Your task to perform on an android device: What's the news in India? Image 0: 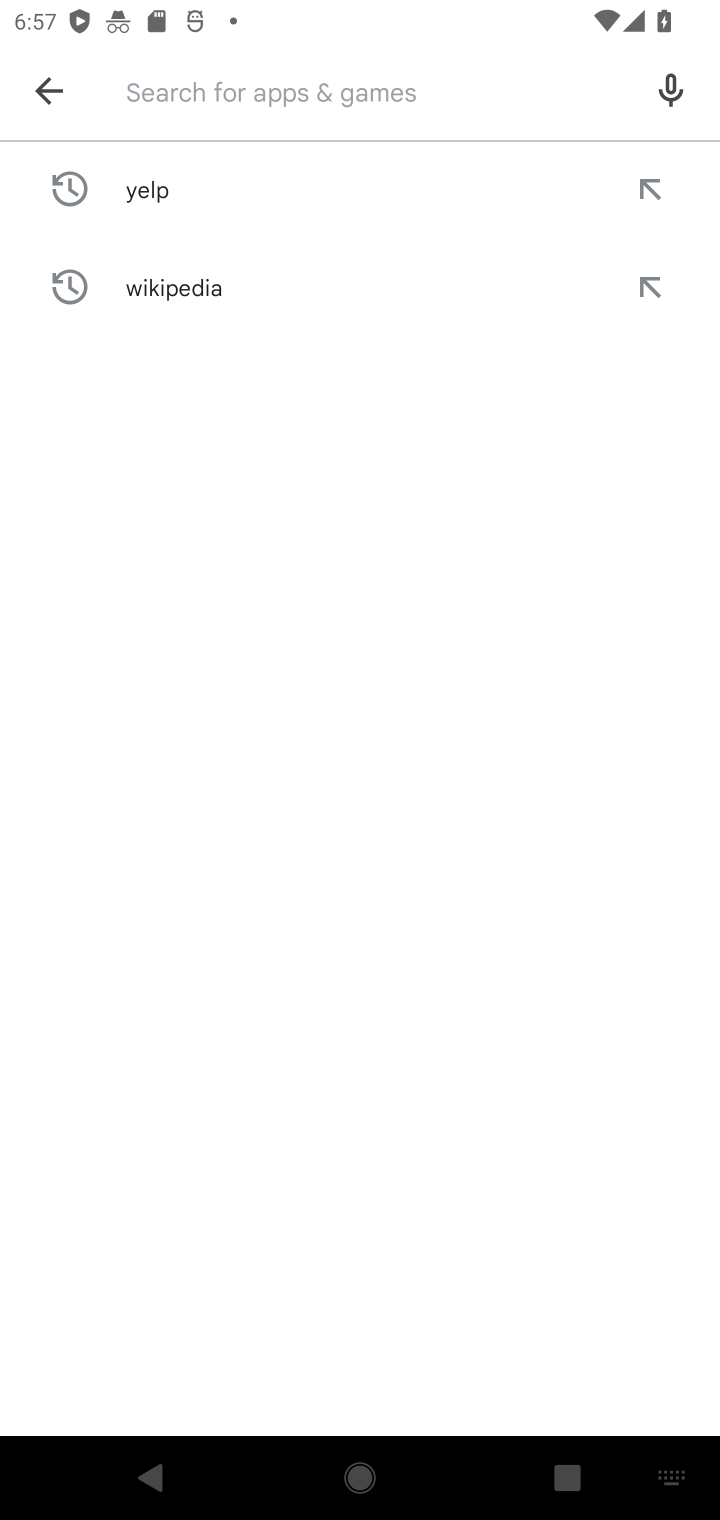
Step 0: press home button
Your task to perform on an android device: What's the news in India? Image 1: 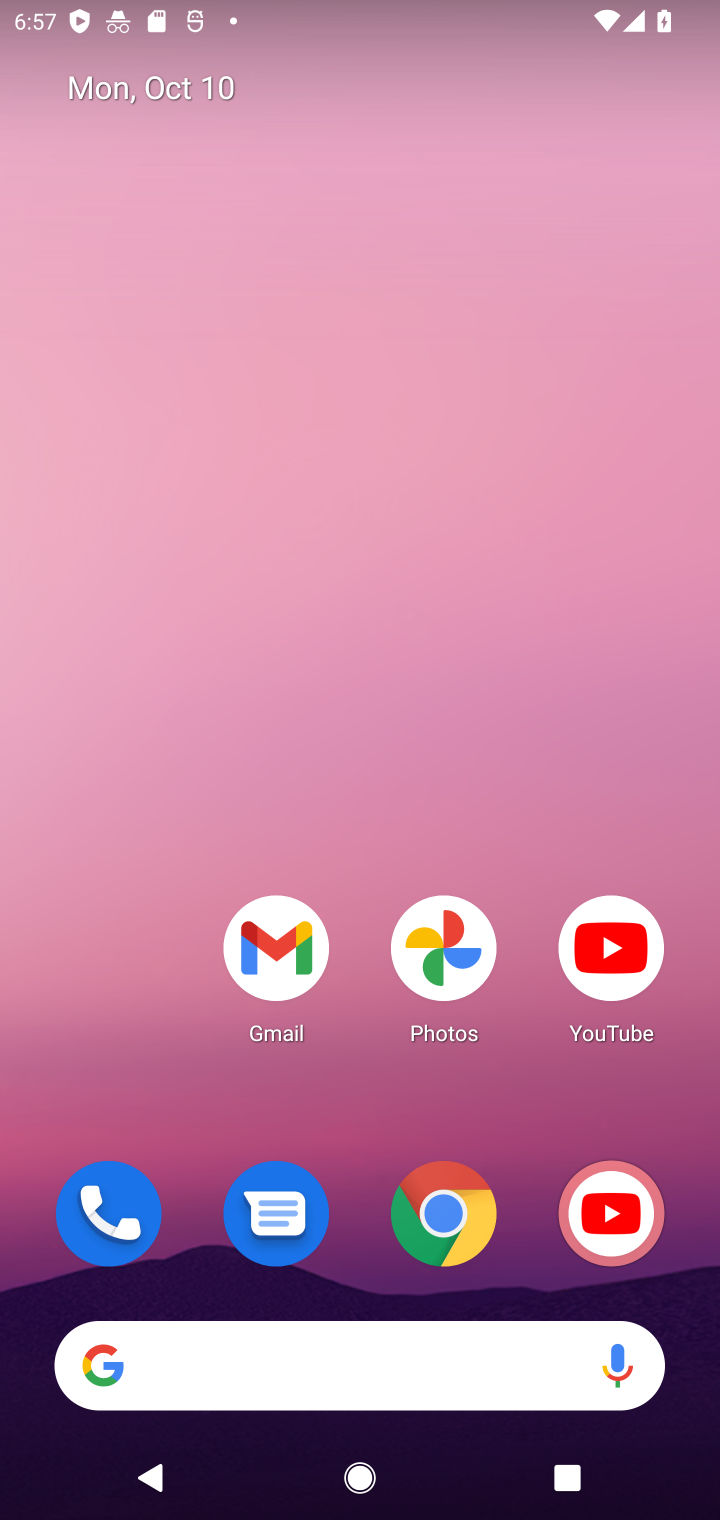
Step 1: click (247, 1390)
Your task to perform on an android device: What's the news in India? Image 2: 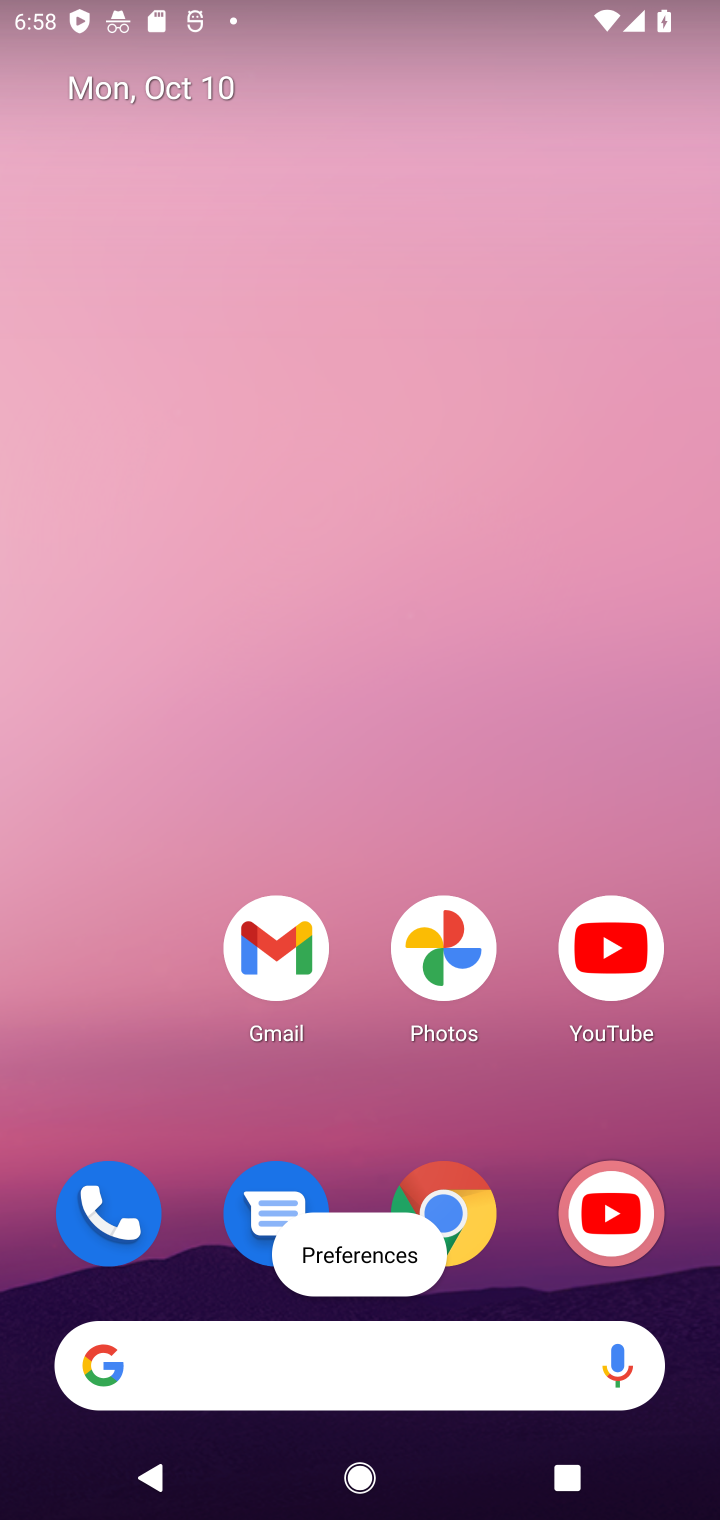
Step 2: click (386, 1367)
Your task to perform on an android device: What's the news in India? Image 3: 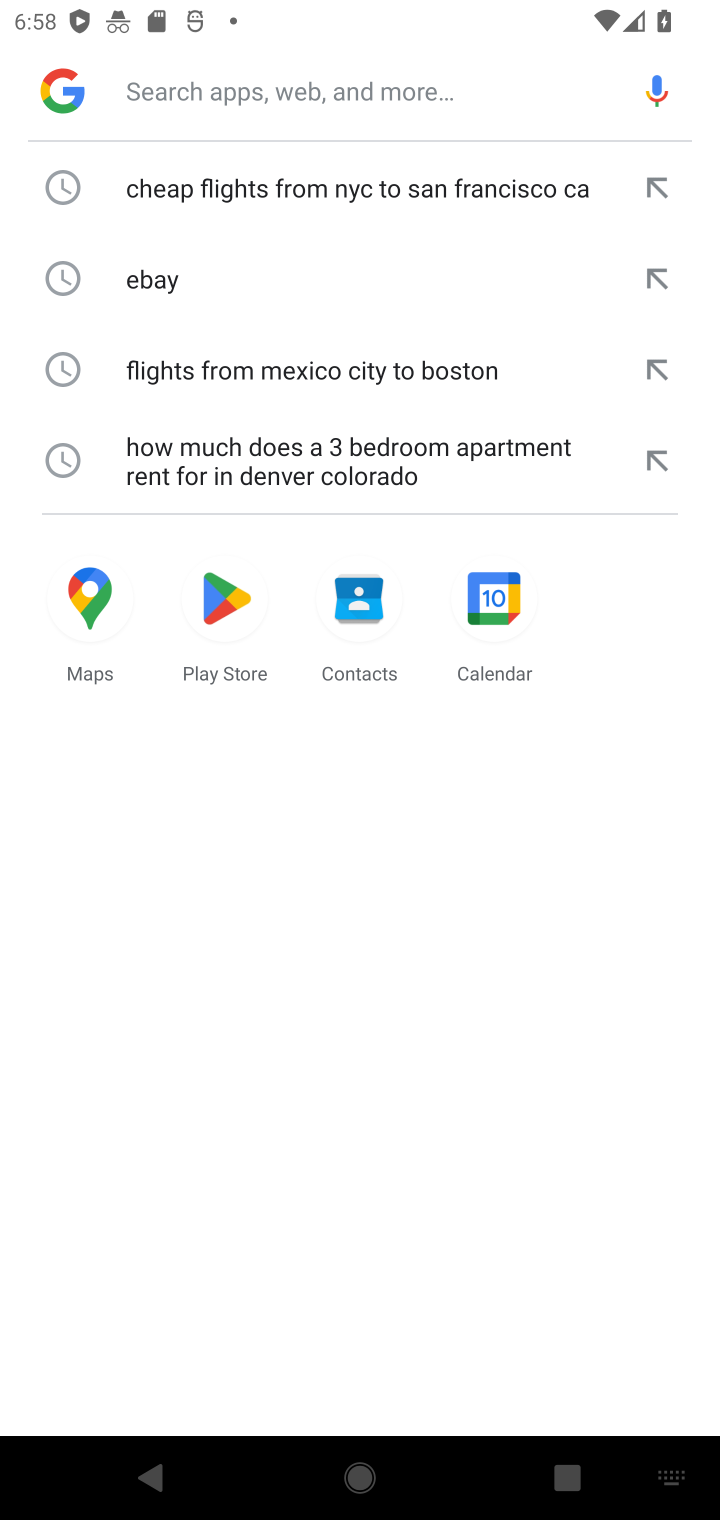
Step 3: click (299, 79)
Your task to perform on an android device: What's the news in India? Image 4: 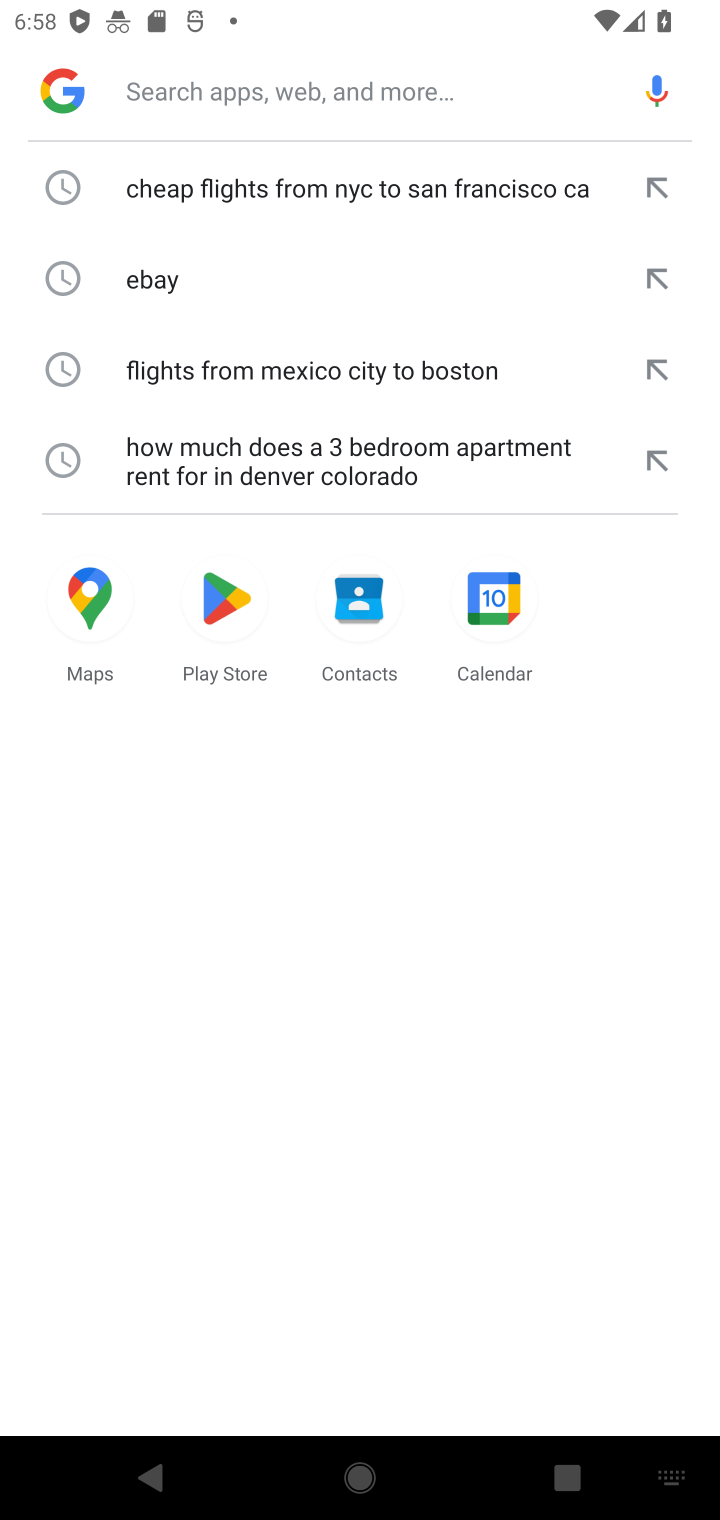
Step 4: type "What's the news in India"
Your task to perform on an android device: What's the news in India? Image 5: 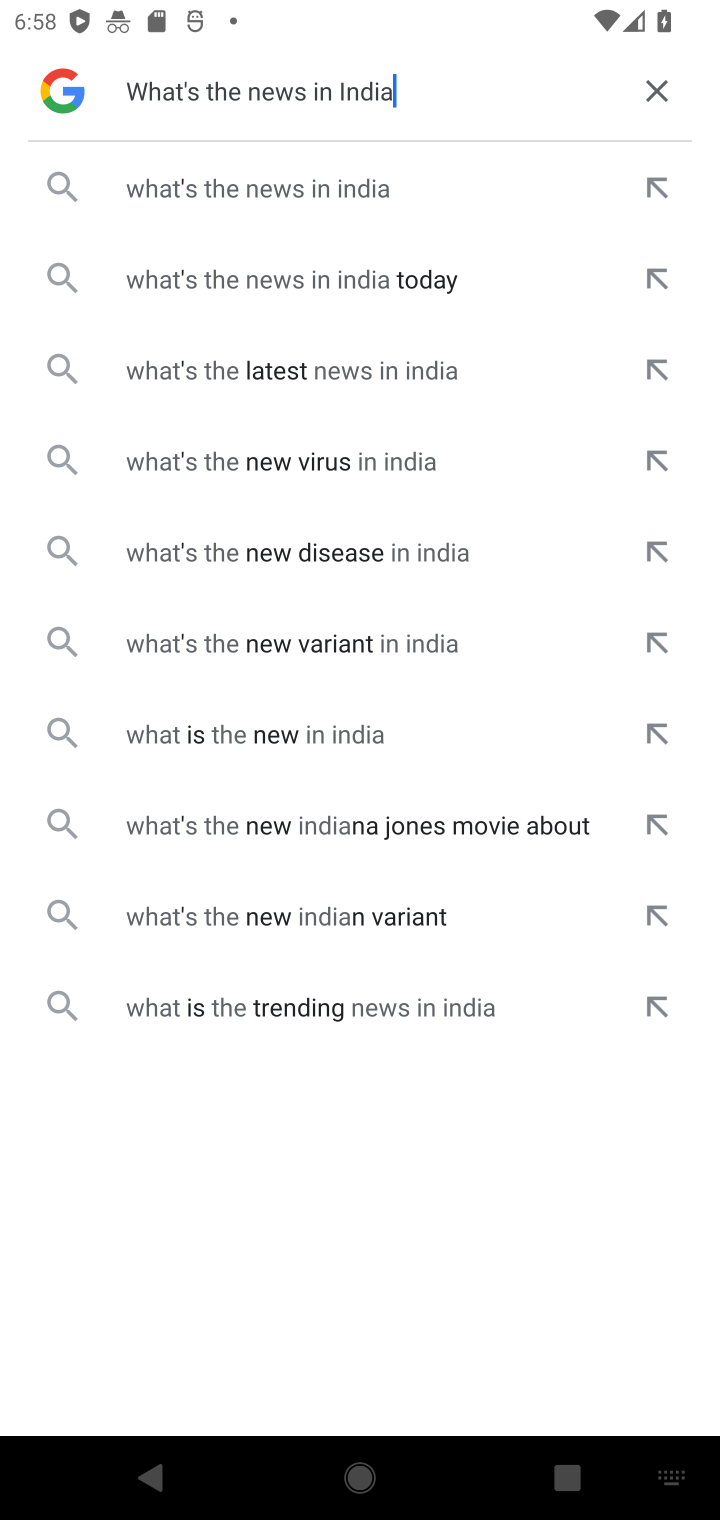
Step 5: click (263, 201)
Your task to perform on an android device: What's the news in India? Image 6: 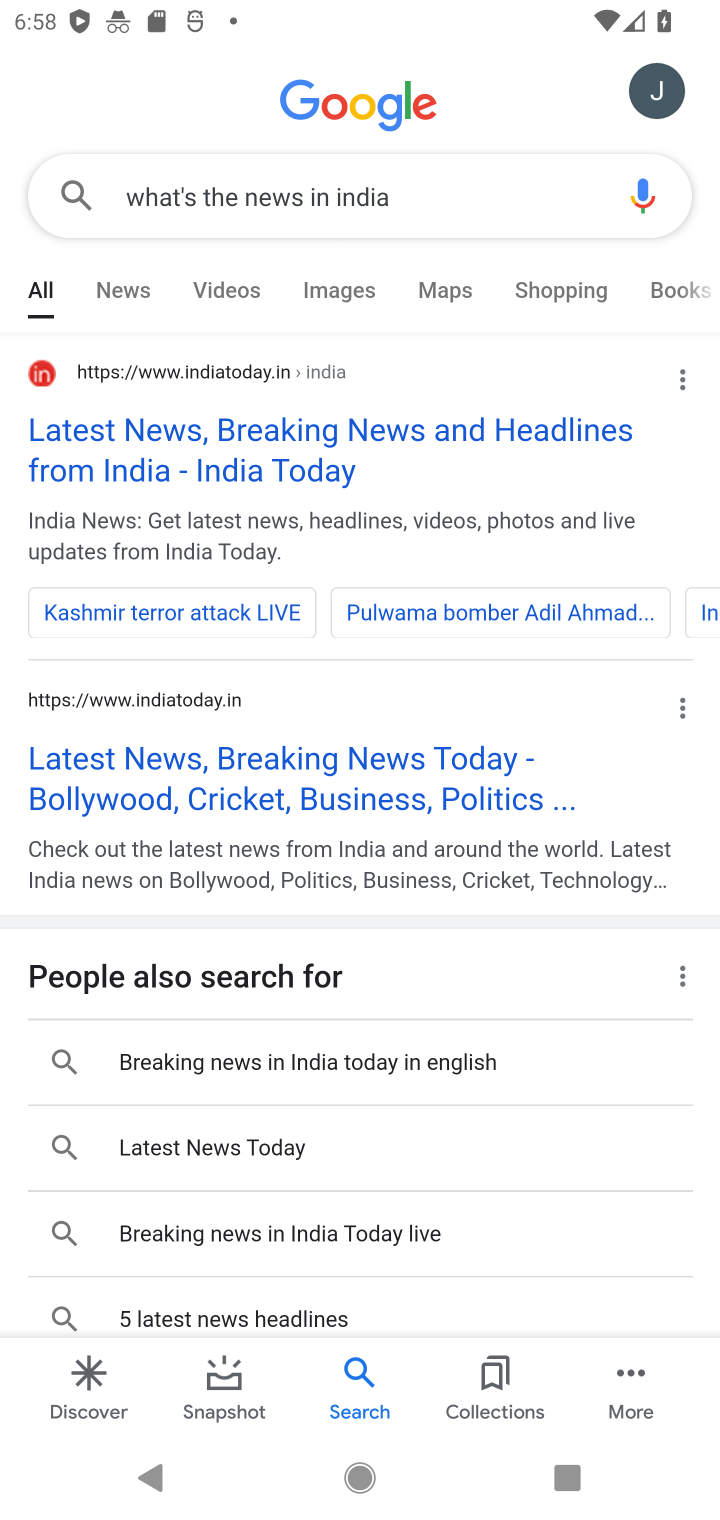
Step 6: task complete